Your task to perform on an android device: delete location history Image 0: 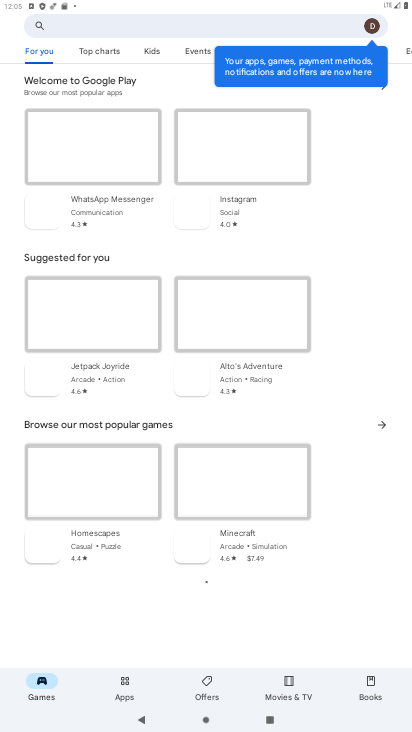
Step 0: press home button
Your task to perform on an android device: delete location history Image 1: 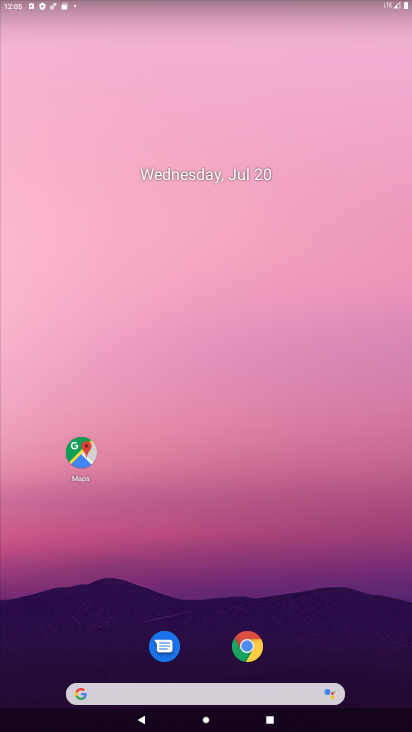
Step 1: drag from (200, 619) to (169, 151)
Your task to perform on an android device: delete location history Image 2: 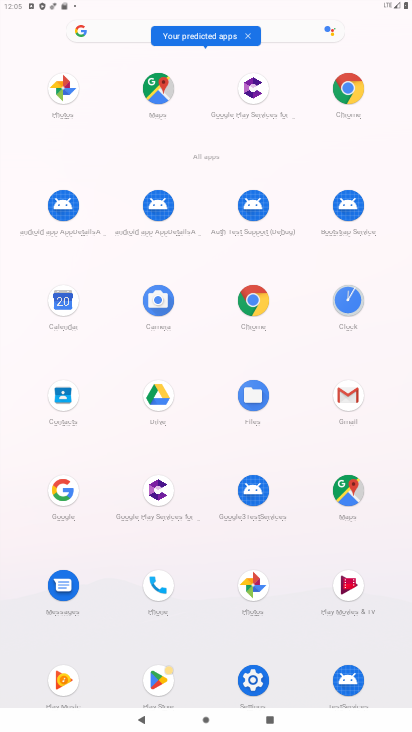
Step 2: click (356, 482)
Your task to perform on an android device: delete location history Image 3: 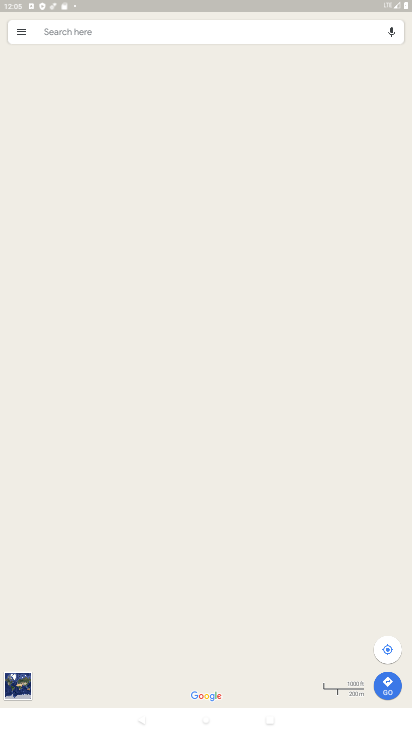
Step 3: click (25, 31)
Your task to perform on an android device: delete location history Image 4: 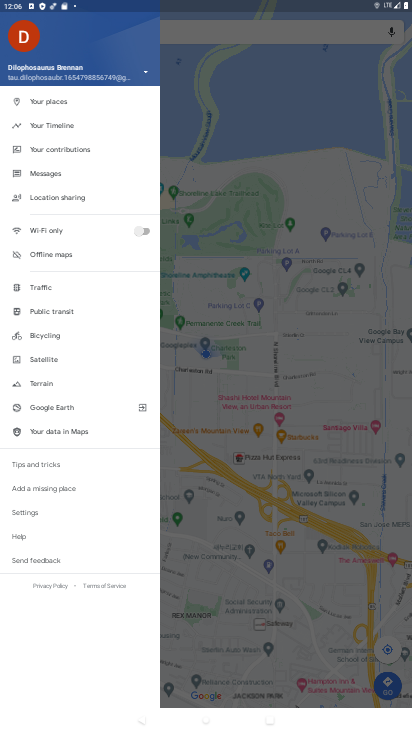
Step 4: click (66, 131)
Your task to perform on an android device: delete location history Image 5: 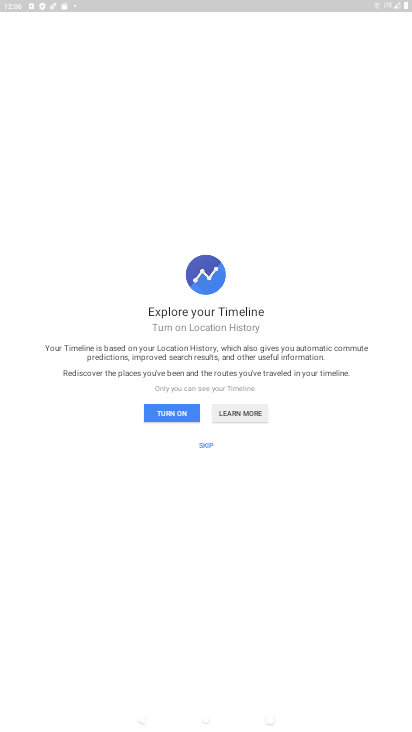
Step 5: click (184, 421)
Your task to perform on an android device: delete location history Image 6: 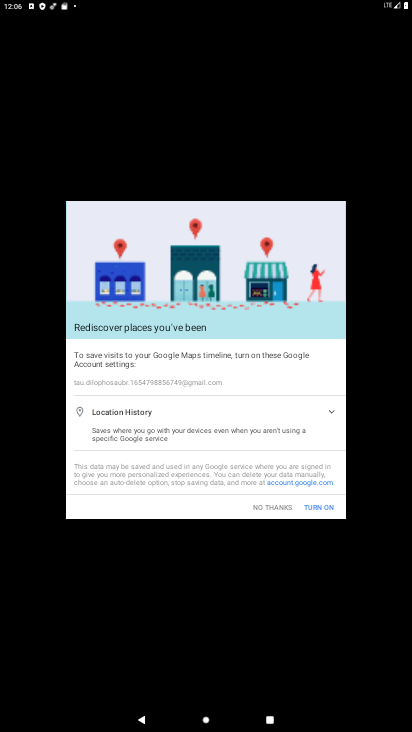
Step 6: click (313, 506)
Your task to perform on an android device: delete location history Image 7: 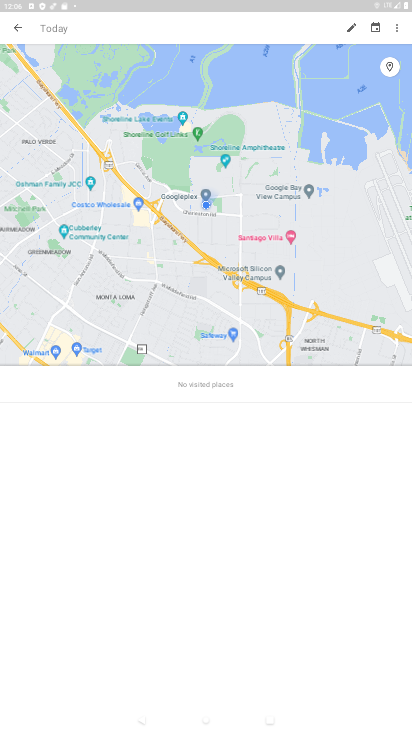
Step 7: click (397, 37)
Your task to perform on an android device: delete location history Image 8: 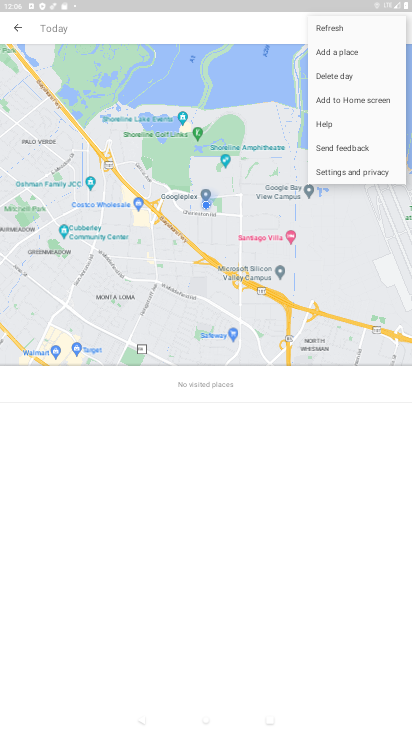
Step 8: click (330, 178)
Your task to perform on an android device: delete location history Image 9: 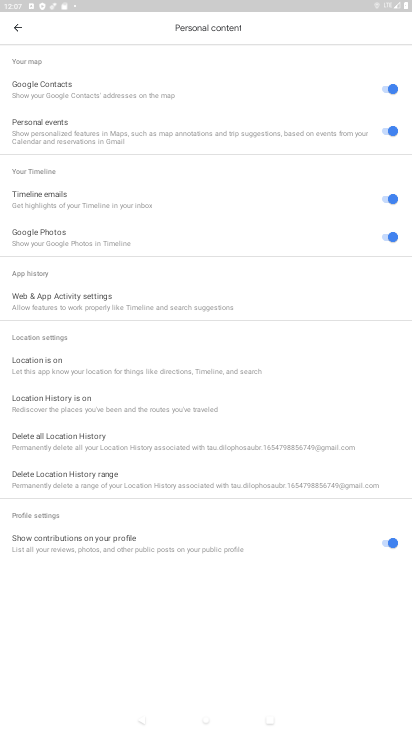
Step 9: click (117, 445)
Your task to perform on an android device: delete location history Image 10: 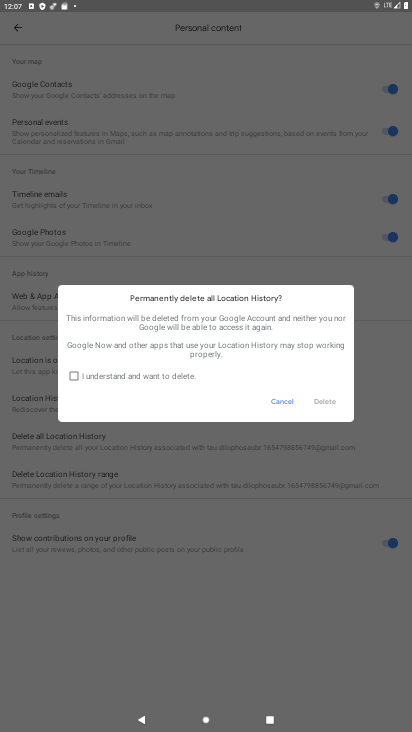
Step 10: click (71, 371)
Your task to perform on an android device: delete location history Image 11: 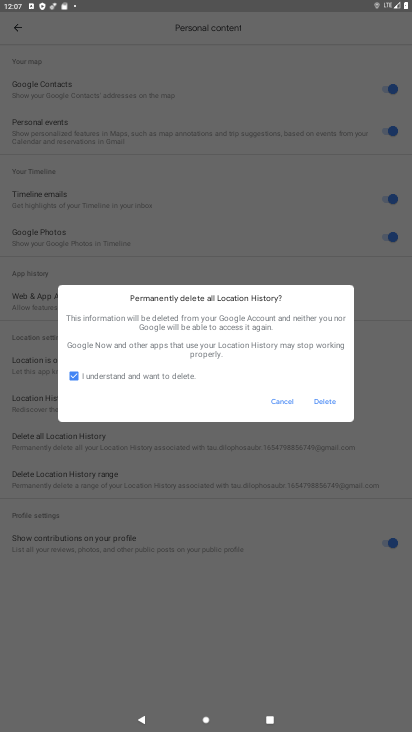
Step 11: click (316, 395)
Your task to perform on an android device: delete location history Image 12: 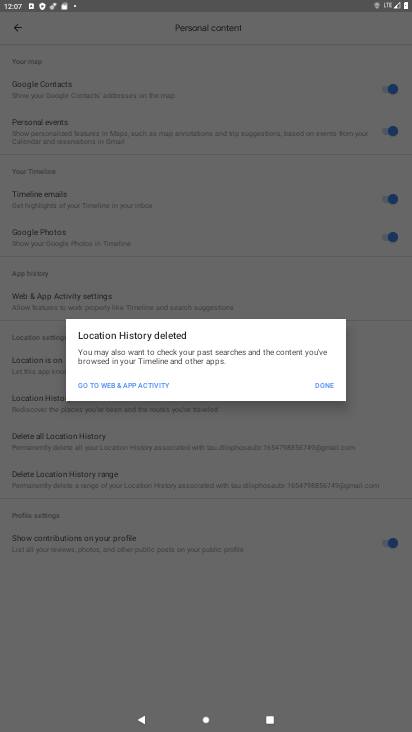
Step 12: click (321, 384)
Your task to perform on an android device: delete location history Image 13: 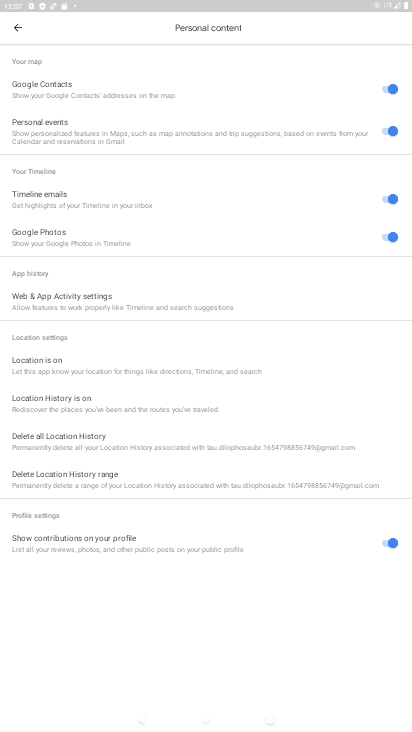
Step 13: task complete